Your task to perform on an android device: What is the news today? Image 0: 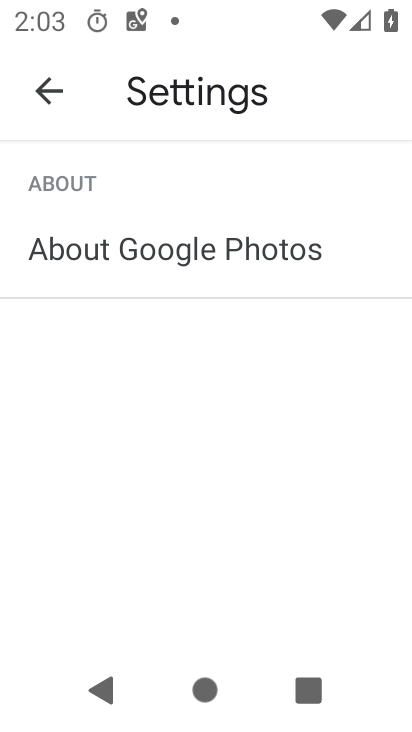
Step 0: press home button
Your task to perform on an android device: What is the news today? Image 1: 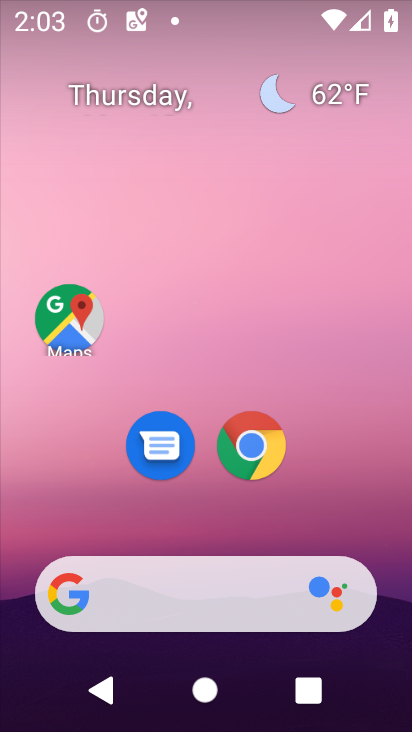
Step 1: task complete